Your task to perform on an android device: Turn on the flashlight Image 0: 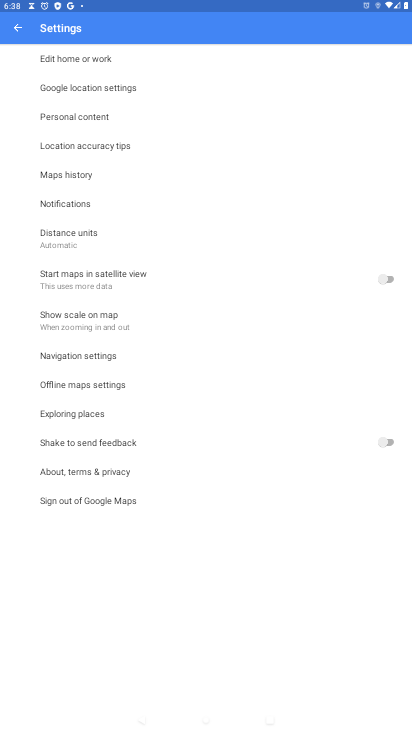
Step 0: press home button
Your task to perform on an android device: Turn on the flashlight Image 1: 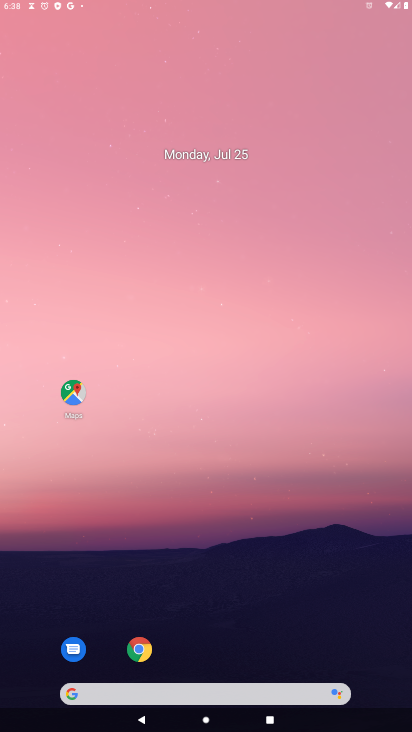
Step 1: task complete